Your task to perform on an android device: Open the calendar and show me this week's events? Image 0: 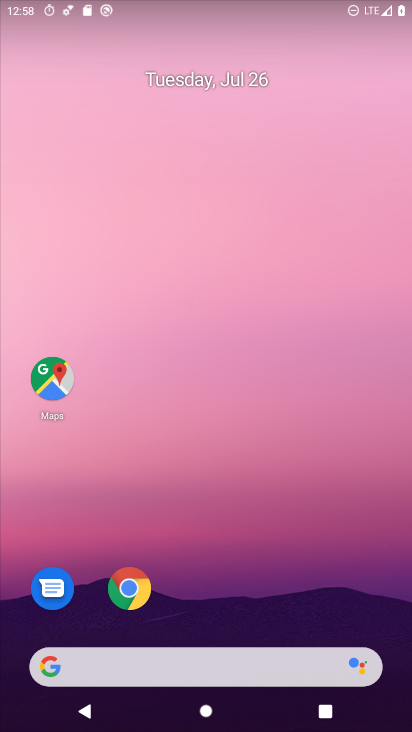
Step 0: drag from (183, 593) to (276, 104)
Your task to perform on an android device: Open the calendar and show me this week's events? Image 1: 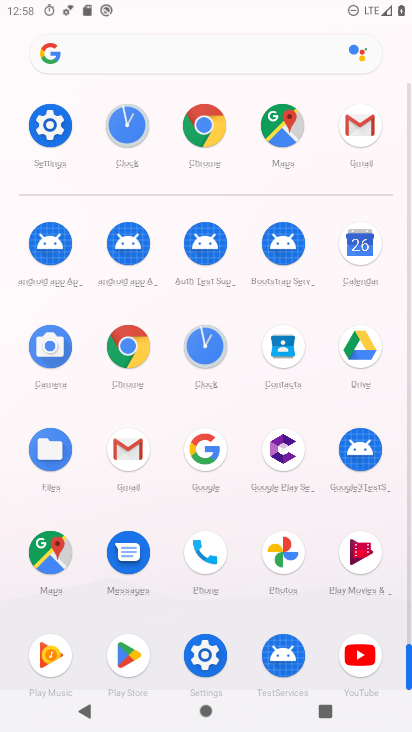
Step 1: click (371, 250)
Your task to perform on an android device: Open the calendar and show me this week's events? Image 2: 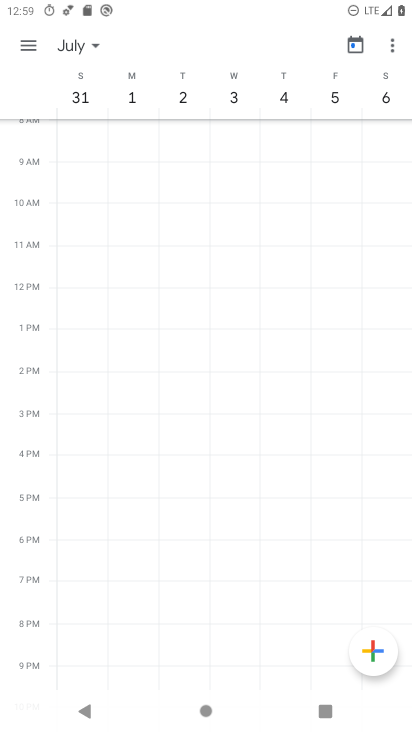
Step 2: click (37, 52)
Your task to perform on an android device: Open the calendar and show me this week's events? Image 3: 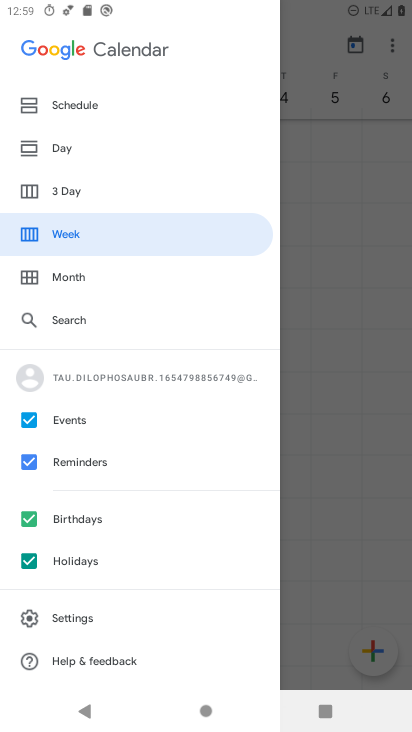
Step 3: click (321, 278)
Your task to perform on an android device: Open the calendar and show me this week's events? Image 4: 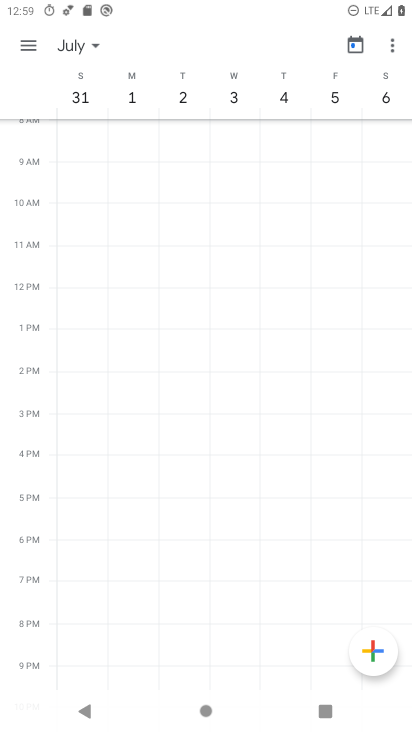
Step 4: task complete